Your task to perform on an android device: find snoozed emails in the gmail app Image 0: 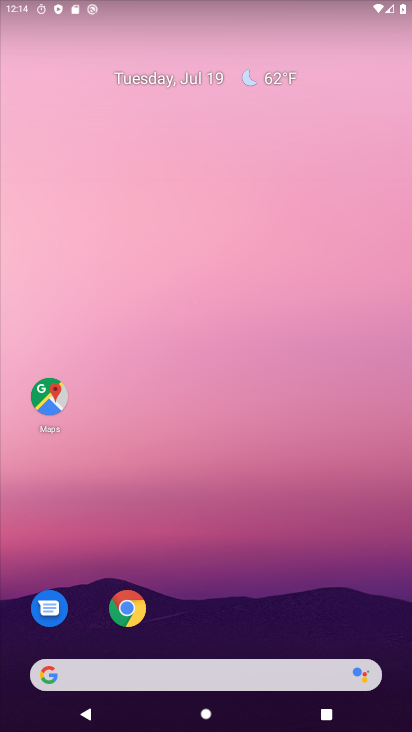
Step 0: drag from (225, 639) to (257, 16)
Your task to perform on an android device: find snoozed emails in the gmail app Image 1: 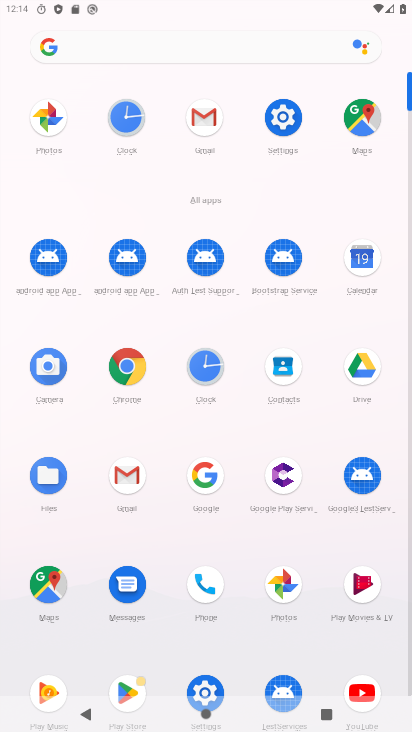
Step 1: click (202, 109)
Your task to perform on an android device: find snoozed emails in the gmail app Image 2: 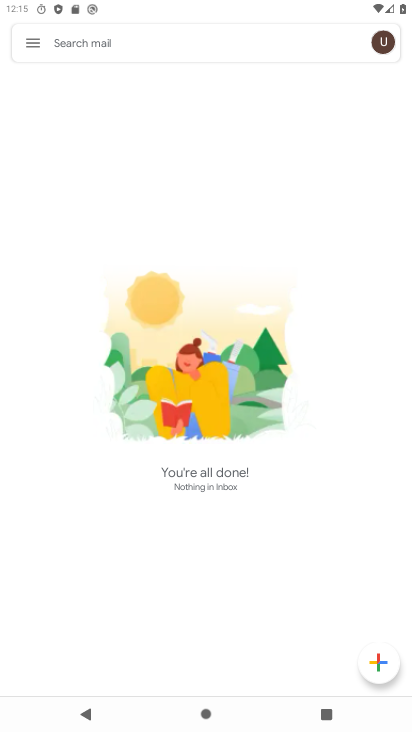
Step 2: click (29, 37)
Your task to perform on an android device: find snoozed emails in the gmail app Image 3: 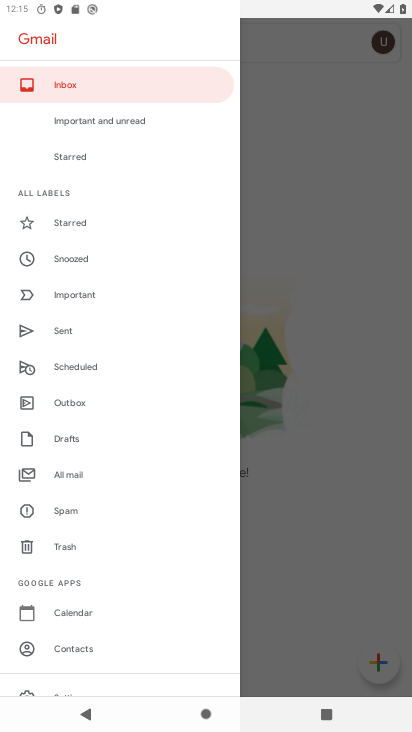
Step 3: click (95, 258)
Your task to perform on an android device: find snoozed emails in the gmail app Image 4: 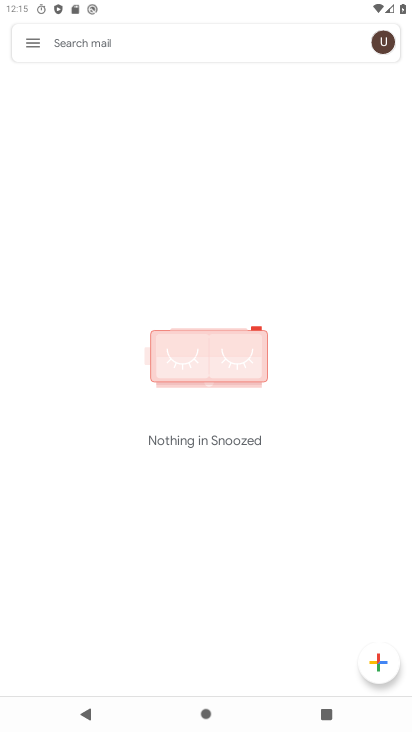
Step 4: task complete